Your task to perform on an android device: turn off notifications settings in the gmail app Image 0: 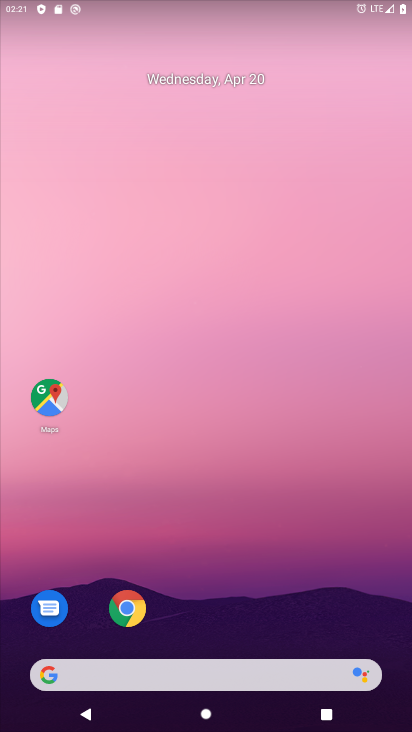
Step 0: drag from (384, 625) to (358, 135)
Your task to perform on an android device: turn off notifications settings in the gmail app Image 1: 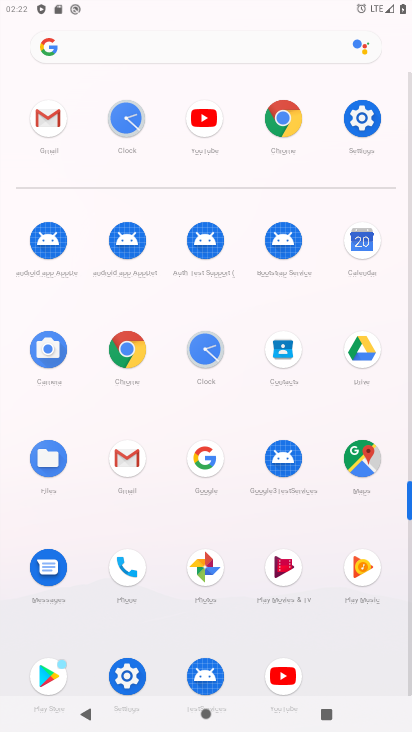
Step 1: click (134, 467)
Your task to perform on an android device: turn off notifications settings in the gmail app Image 2: 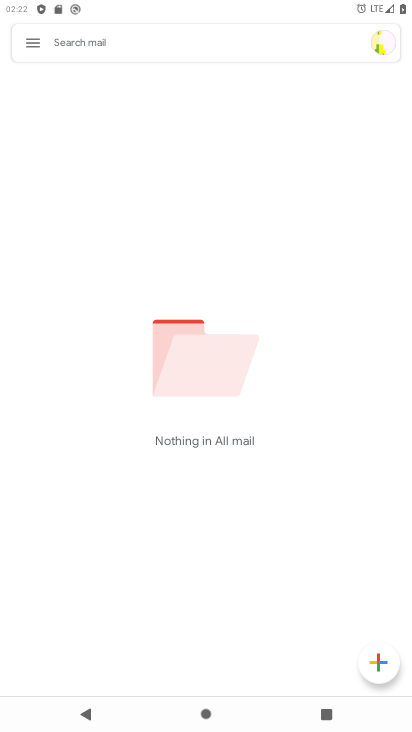
Step 2: click (100, 43)
Your task to perform on an android device: turn off notifications settings in the gmail app Image 3: 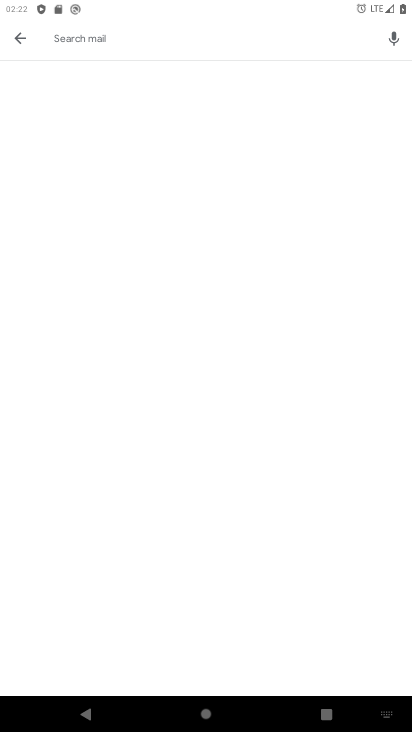
Step 3: press home button
Your task to perform on an android device: turn off notifications settings in the gmail app Image 4: 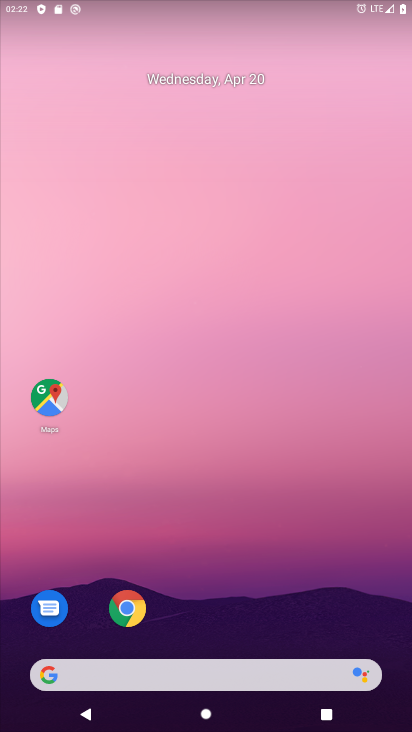
Step 4: drag from (306, 566) to (322, 138)
Your task to perform on an android device: turn off notifications settings in the gmail app Image 5: 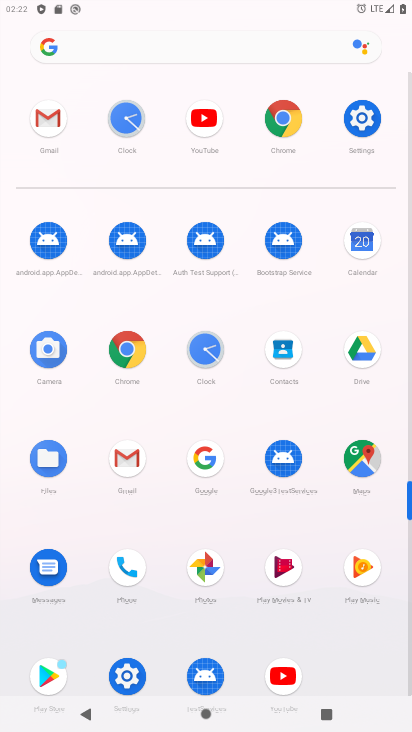
Step 5: click (121, 456)
Your task to perform on an android device: turn off notifications settings in the gmail app Image 6: 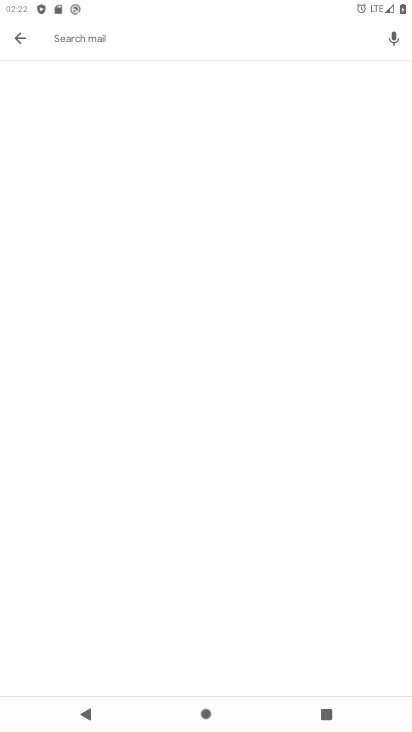
Step 6: click (25, 41)
Your task to perform on an android device: turn off notifications settings in the gmail app Image 7: 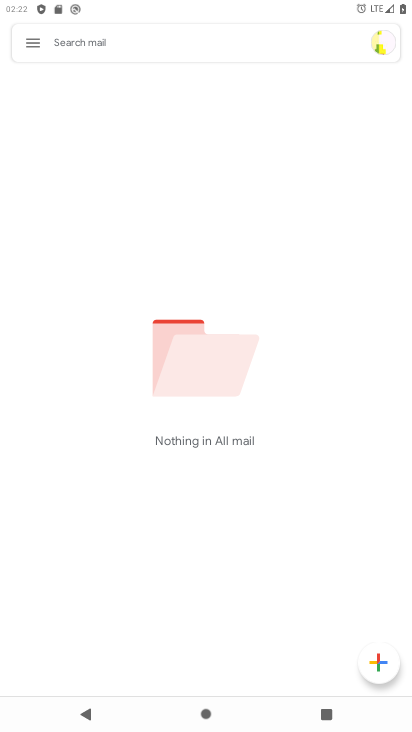
Step 7: click (25, 48)
Your task to perform on an android device: turn off notifications settings in the gmail app Image 8: 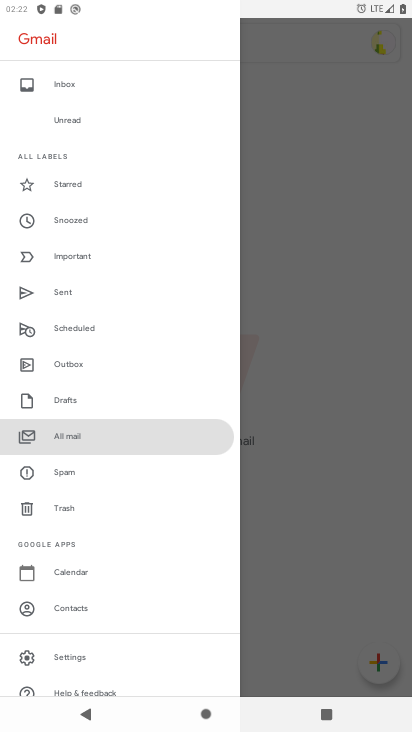
Step 8: click (135, 658)
Your task to perform on an android device: turn off notifications settings in the gmail app Image 9: 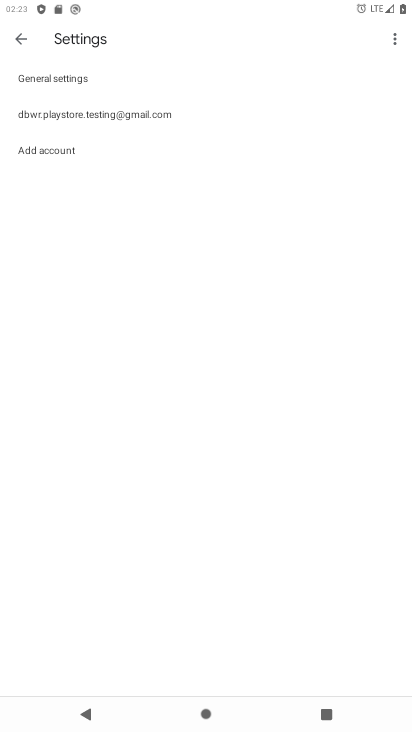
Step 9: click (175, 118)
Your task to perform on an android device: turn off notifications settings in the gmail app Image 10: 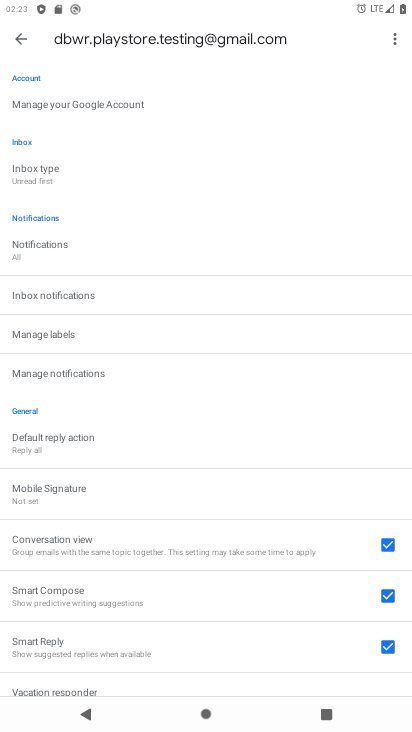
Step 10: click (57, 248)
Your task to perform on an android device: turn off notifications settings in the gmail app Image 11: 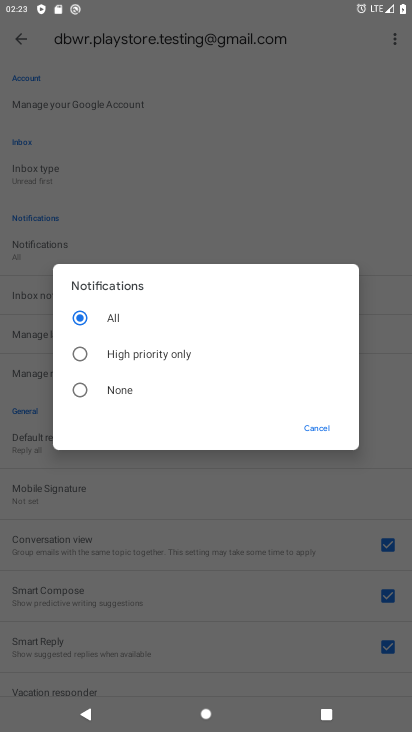
Step 11: click (105, 380)
Your task to perform on an android device: turn off notifications settings in the gmail app Image 12: 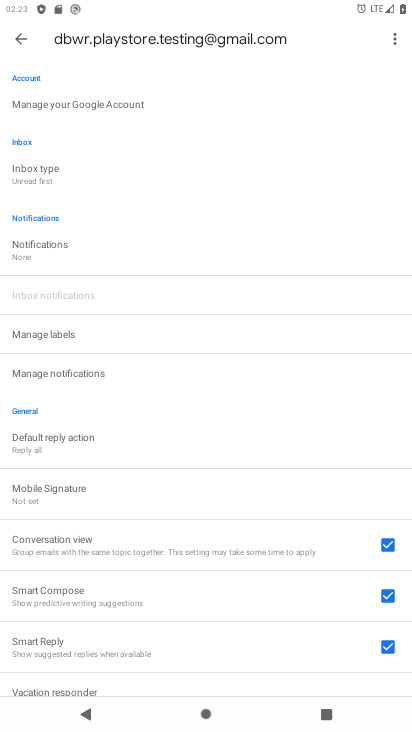
Step 12: task complete